Your task to perform on an android device: manage bookmarks in the chrome app Image 0: 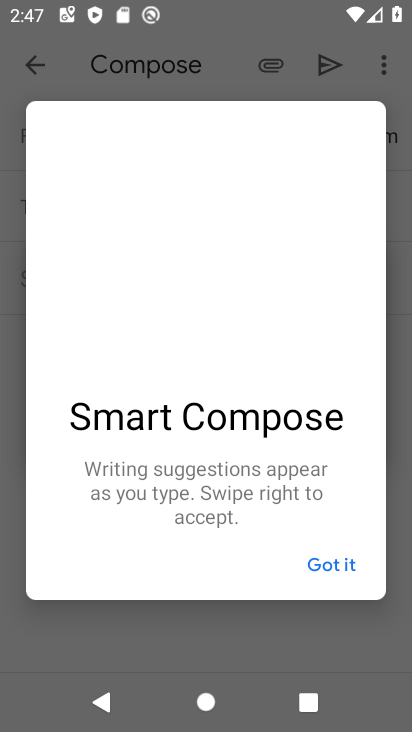
Step 0: press home button
Your task to perform on an android device: manage bookmarks in the chrome app Image 1: 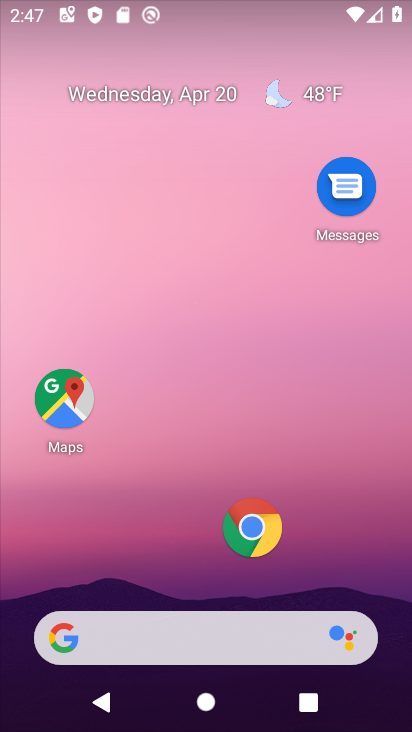
Step 1: drag from (163, 599) to (253, 28)
Your task to perform on an android device: manage bookmarks in the chrome app Image 2: 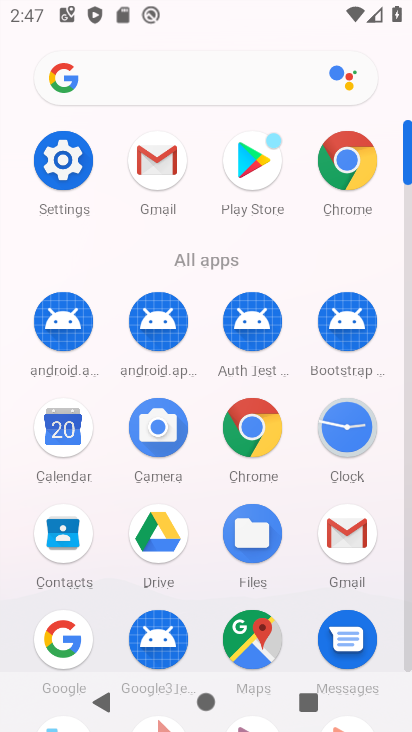
Step 2: click (354, 176)
Your task to perform on an android device: manage bookmarks in the chrome app Image 3: 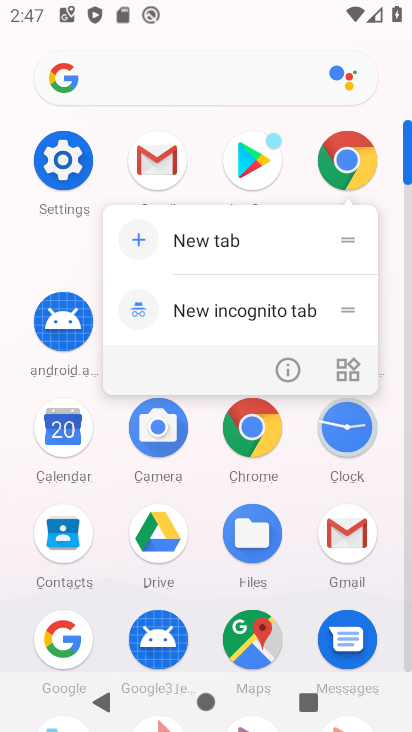
Step 3: click (347, 165)
Your task to perform on an android device: manage bookmarks in the chrome app Image 4: 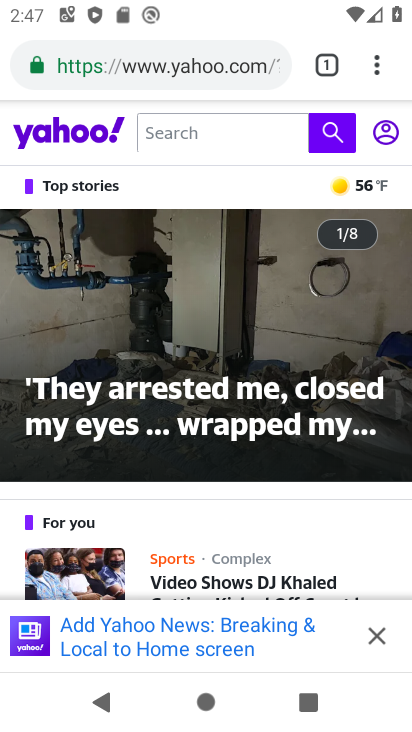
Step 4: click (377, 66)
Your task to perform on an android device: manage bookmarks in the chrome app Image 5: 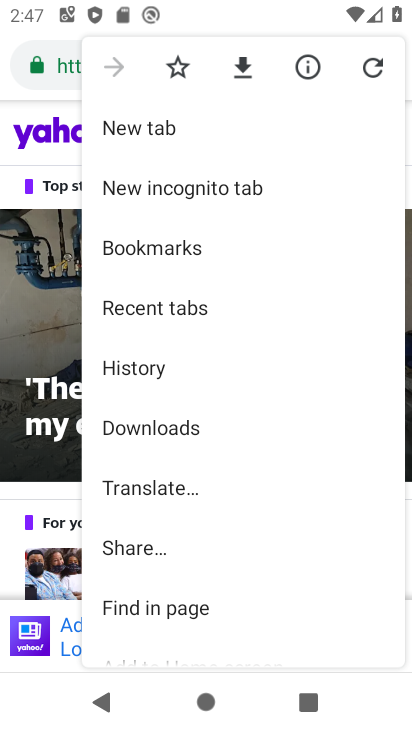
Step 5: click (175, 243)
Your task to perform on an android device: manage bookmarks in the chrome app Image 6: 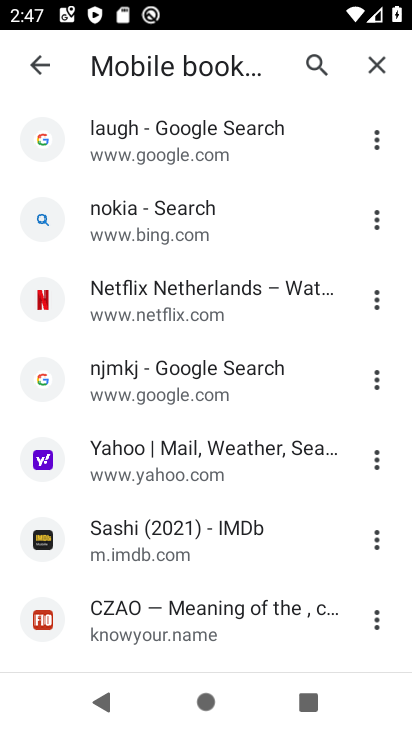
Step 6: click (375, 143)
Your task to perform on an android device: manage bookmarks in the chrome app Image 7: 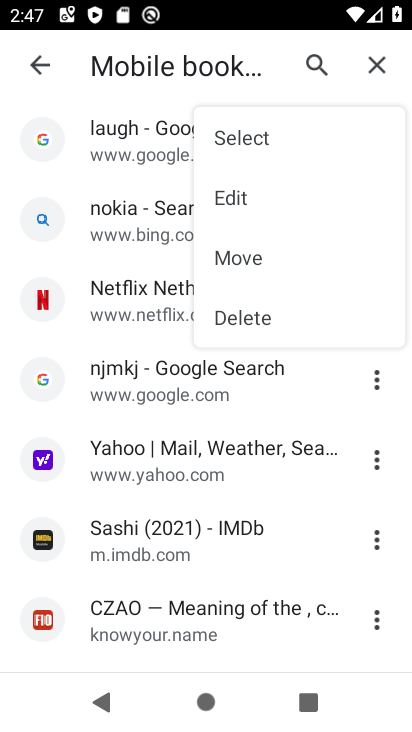
Step 7: click (253, 315)
Your task to perform on an android device: manage bookmarks in the chrome app Image 8: 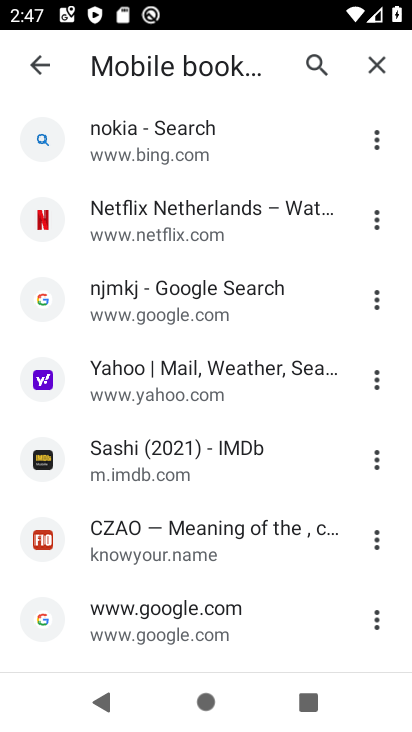
Step 8: task complete